Your task to perform on an android device: create a new album in the google photos Image 0: 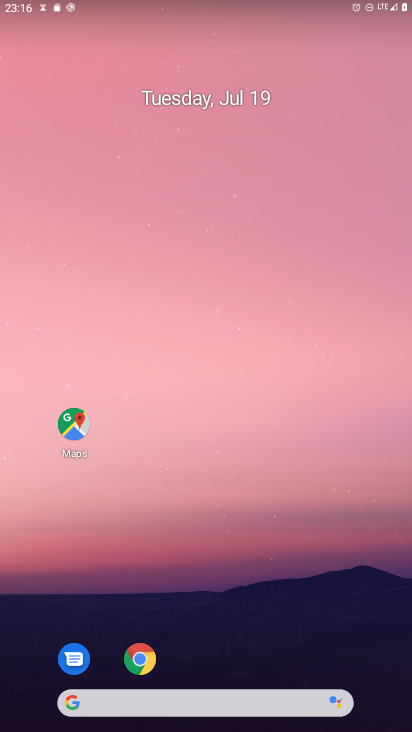
Step 0: drag from (267, 635) to (374, 351)
Your task to perform on an android device: create a new album in the google photos Image 1: 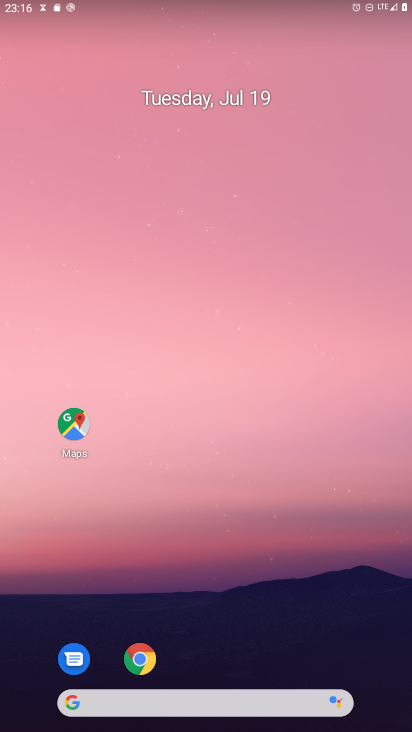
Step 1: drag from (171, 651) to (172, 189)
Your task to perform on an android device: create a new album in the google photos Image 2: 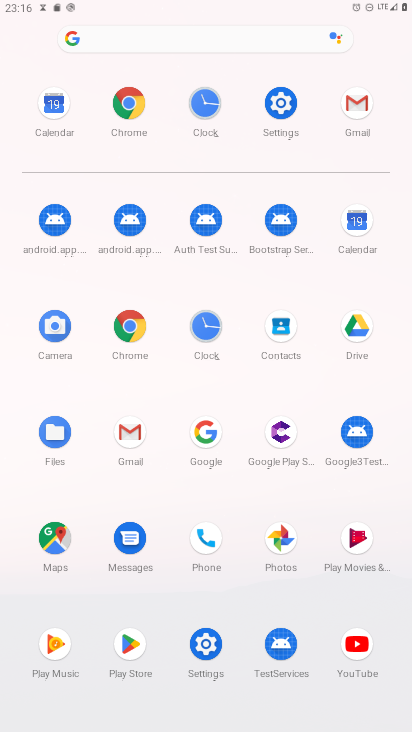
Step 2: click (277, 539)
Your task to perform on an android device: create a new album in the google photos Image 3: 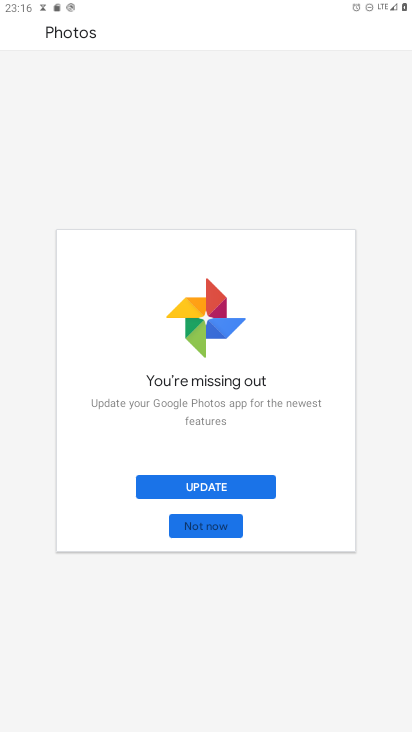
Step 3: click (209, 483)
Your task to perform on an android device: create a new album in the google photos Image 4: 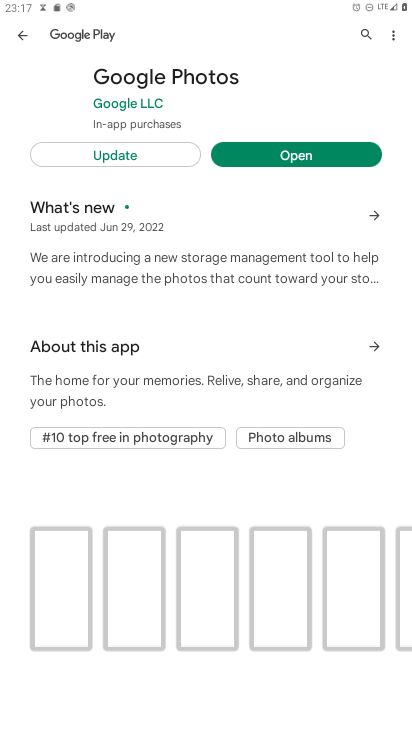
Step 4: press back button
Your task to perform on an android device: create a new album in the google photos Image 5: 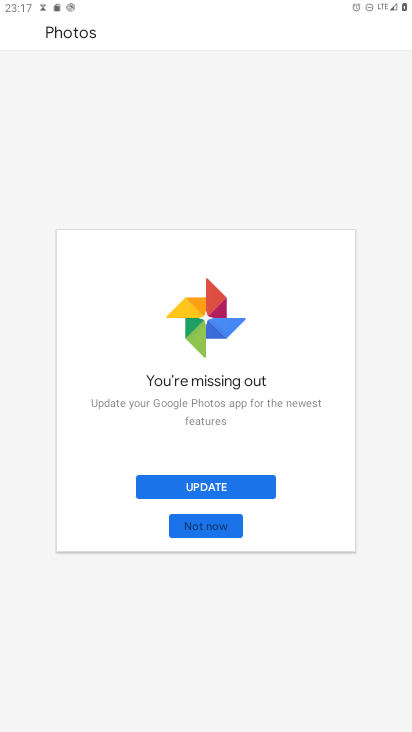
Step 5: click (173, 534)
Your task to perform on an android device: create a new album in the google photos Image 6: 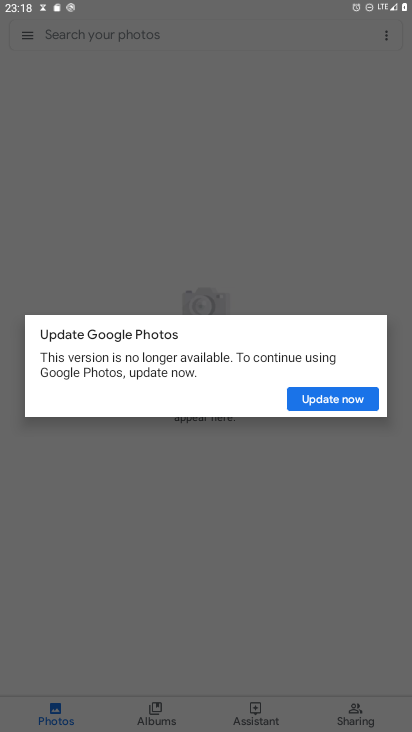
Step 6: task complete